Your task to perform on an android device: Open privacy settings Image 0: 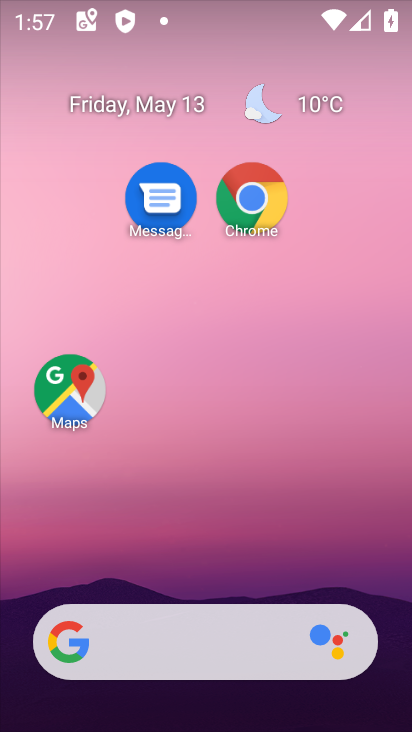
Step 0: drag from (220, 590) to (260, 38)
Your task to perform on an android device: Open privacy settings Image 1: 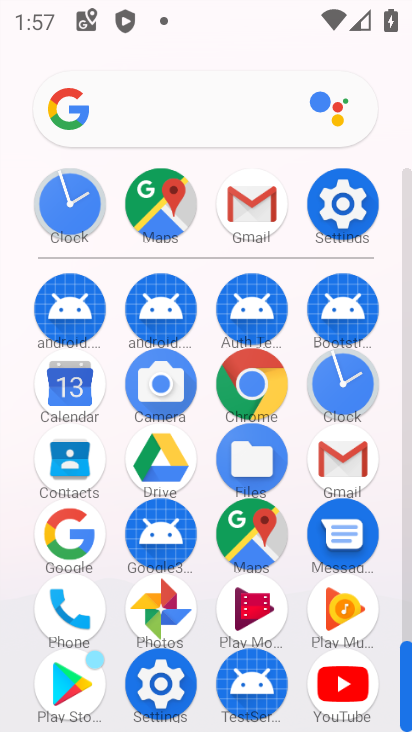
Step 1: click (356, 201)
Your task to perform on an android device: Open privacy settings Image 2: 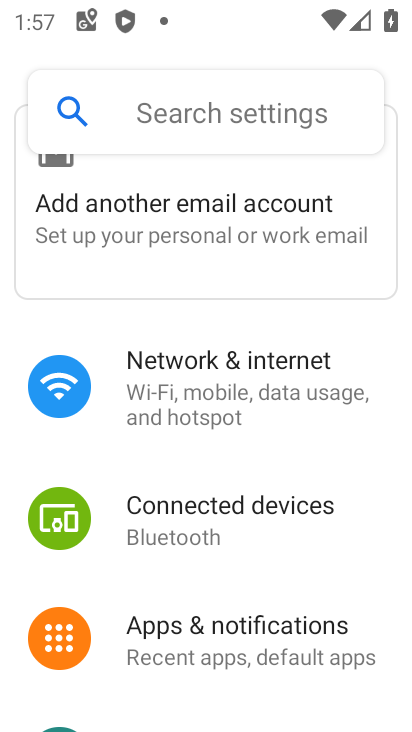
Step 2: drag from (245, 560) to (247, 70)
Your task to perform on an android device: Open privacy settings Image 3: 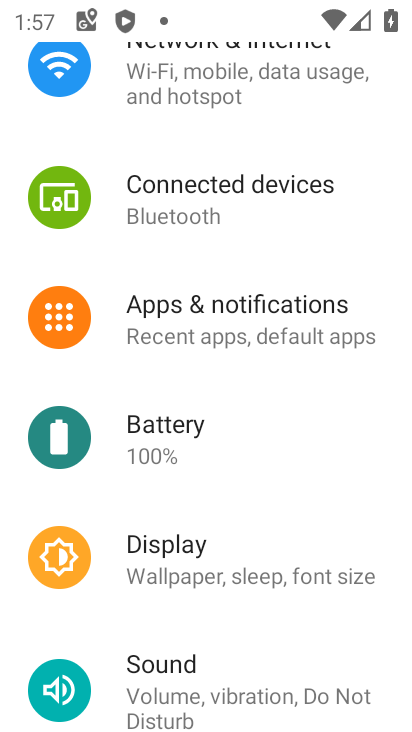
Step 3: drag from (209, 653) to (191, 246)
Your task to perform on an android device: Open privacy settings Image 4: 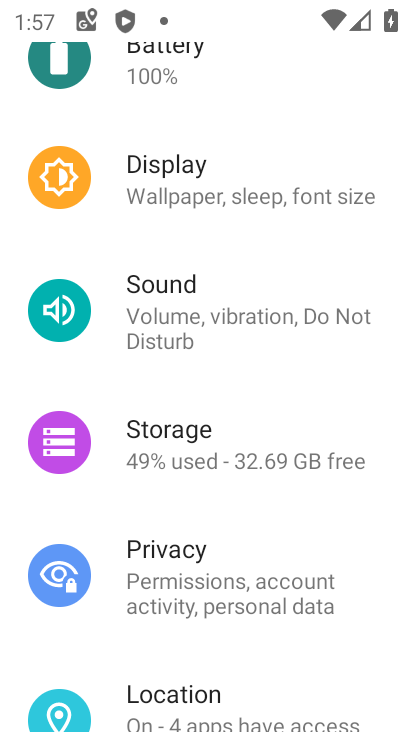
Step 4: click (187, 559)
Your task to perform on an android device: Open privacy settings Image 5: 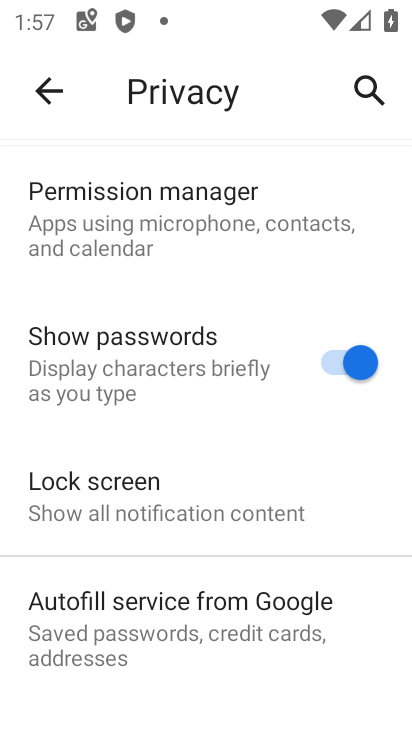
Step 5: task complete